Your task to perform on an android device: Open calendar and show me the fourth week of next month Image 0: 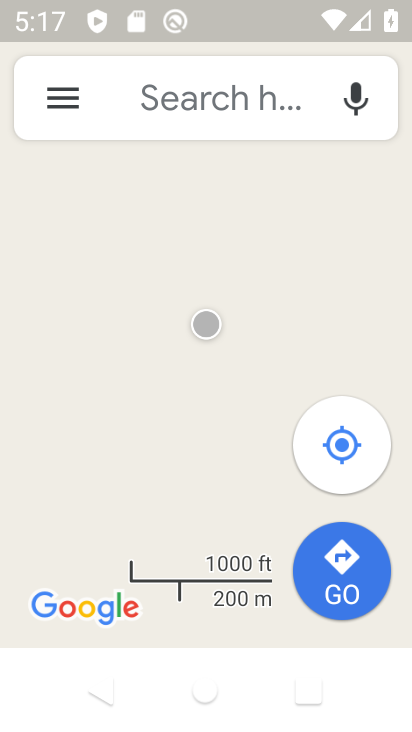
Step 0: press home button
Your task to perform on an android device: Open calendar and show me the fourth week of next month Image 1: 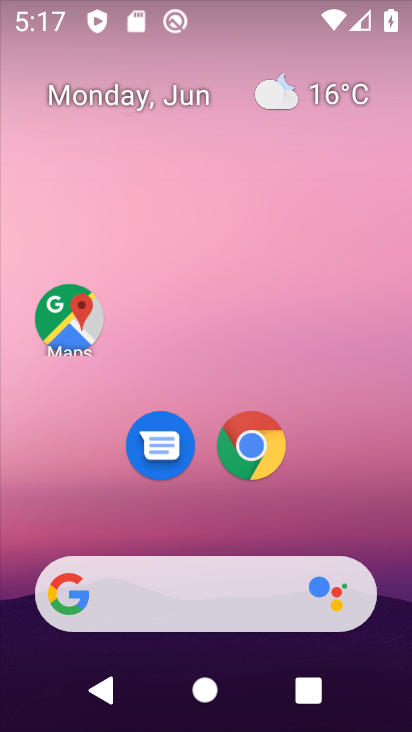
Step 1: drag from (350, 532) to (306, 92)
Your task to perform on an android device: Open calendar and show me the fourth week of next month Image 2: 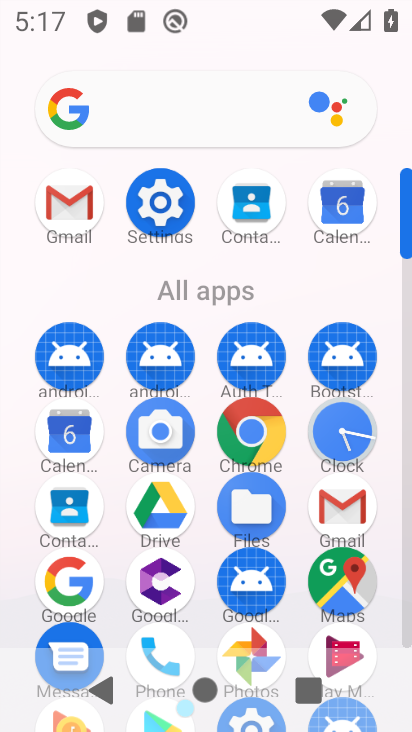
Step 2: click (341, 206)
Your task to perform on an android device: Open calendar and show me the fourth week of next month Image 3: 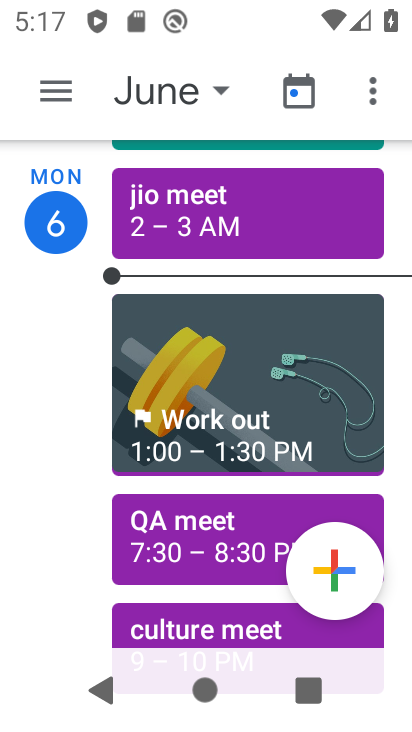
Step 3: click (222, 93)
Your task to perform on an android device: Open calendar and show me the fourth week of next month Image 4: 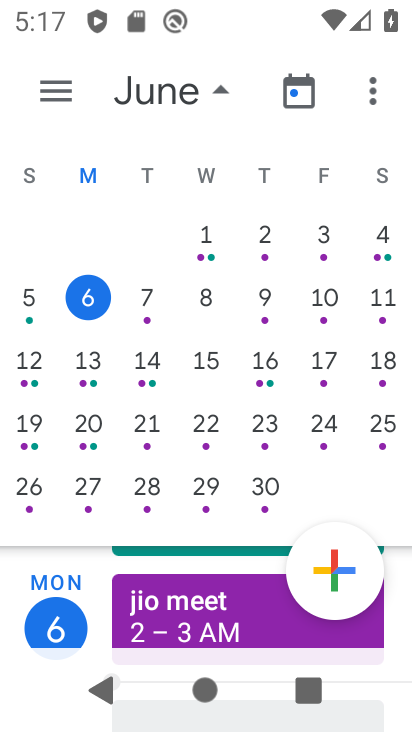
Step 4: drag from (365, 315) to (24, 352)
Your task to perform on an android device: Open calendar and show me the fourth week of next month Image 5: 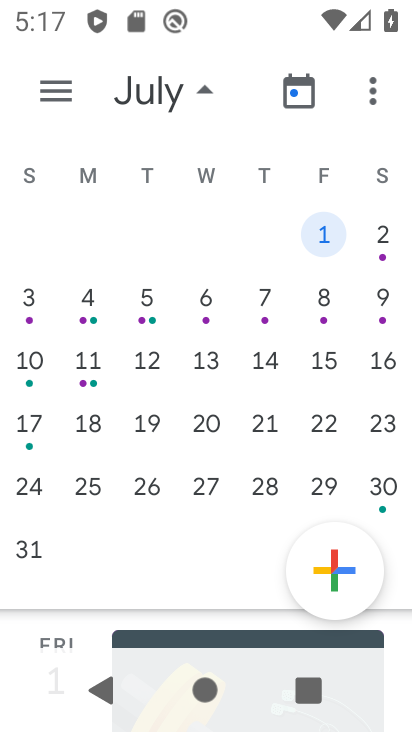
Step 5: click (89, 474)
Your task to perform on an android device: Open calendar and show me the fourth week of next month Image 6: 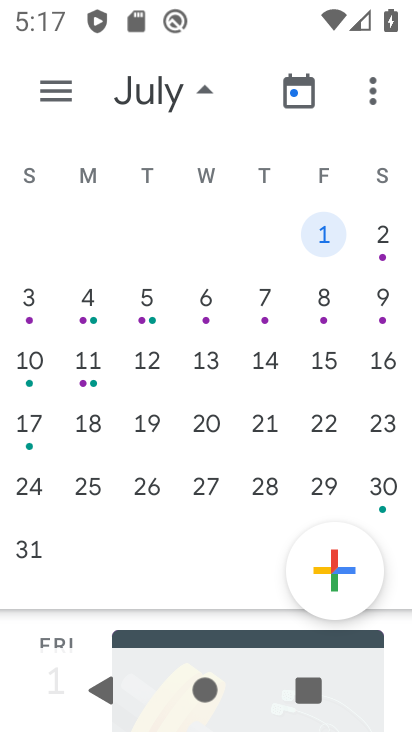
Step 6: click (99, 493)
Your task to perform on an android device: Open calendar and show me the fourth week of next month Image 7: 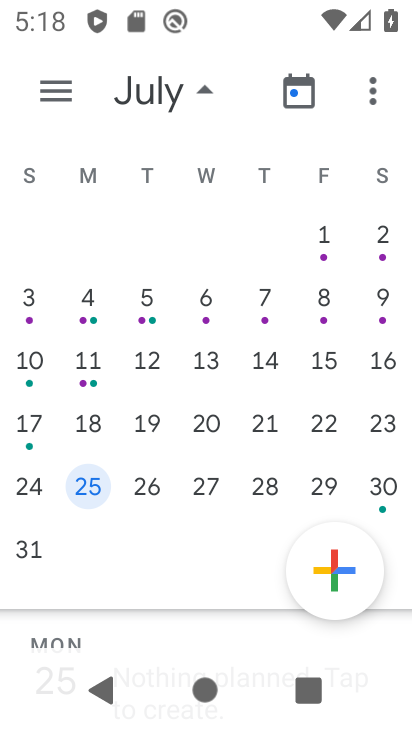
Step 7: click (57, 87)
Your task to perform on an android device: Open calendar and show me the fourth week of next month Image 8: 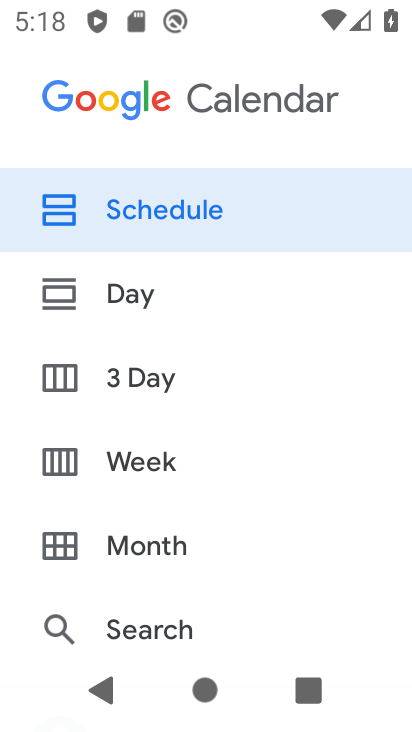
Step 8: click (151, 451)
Your task to perform on an android device: Open calendar and show me the fourth week of next month Image 9: 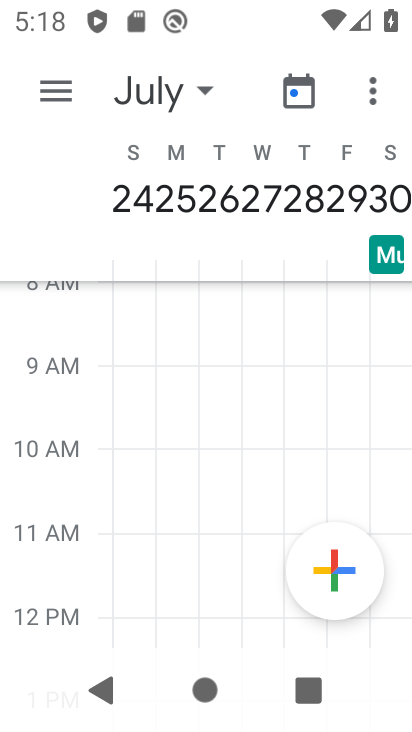
Step 9: task complete